Your task to perform on an android device: toggle translation in the chrome app Image 0: 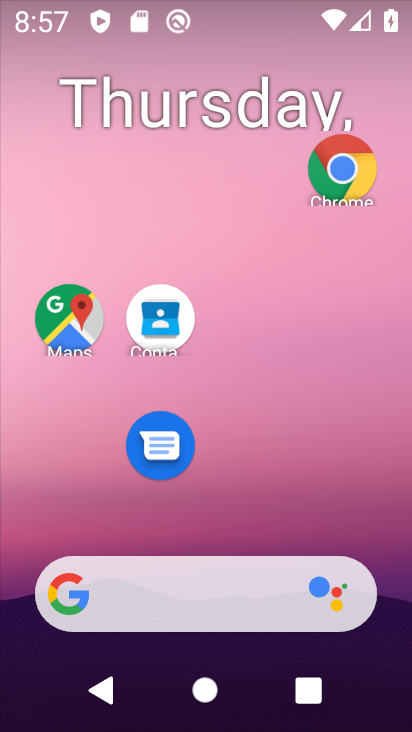
Step 0: drag from (257, 573) to (389, 100)
Your task to perform on an android device: toggle translation in the chrome app Image 1: 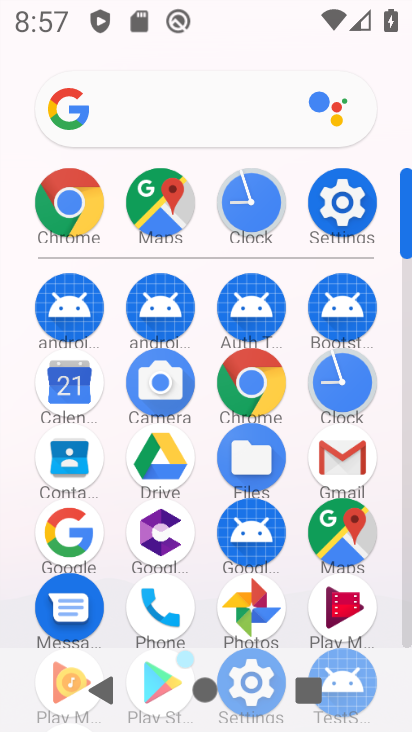
Step 1: click (86, 217)
Your task to perform on an android device: toggle translation in the chrome app Image 2: 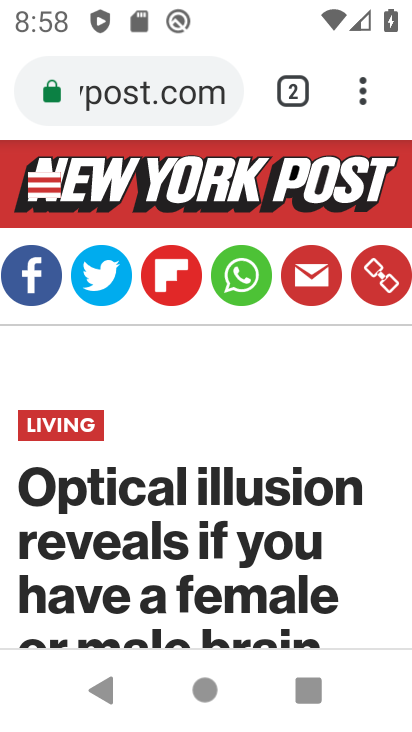
Step 2: click (362, 102)
Your task to perform on an android device: toggle translation in the chrome app Image 3: 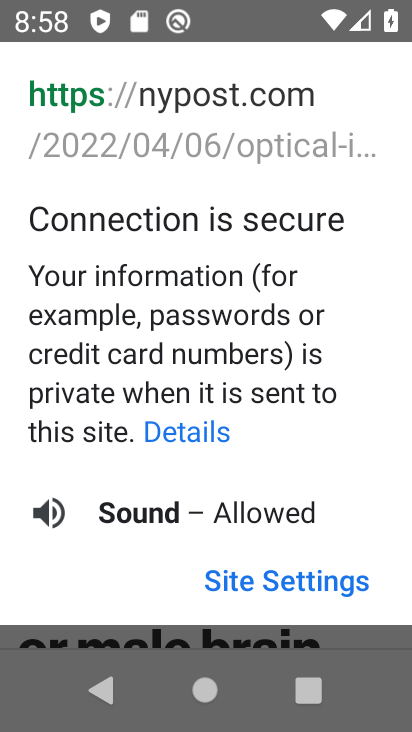
Step 3: press back button
Your task to perform on an android device: toggle translation in the chrome app Image 4: 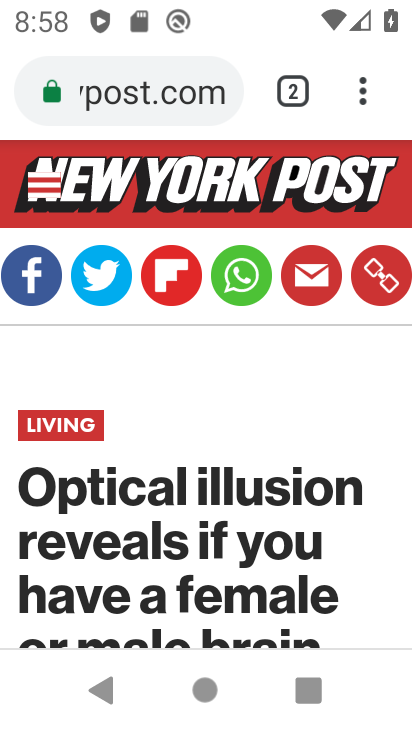
Step 4: click (359, 98)
Your task to perform on an android device: toggle translation in the chrome app Image 5: 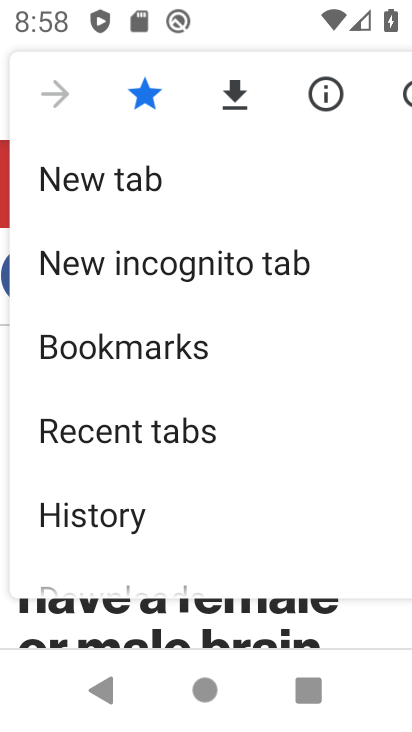
Step 5: drag from (134, 493) to (124, 157)
Your task to perform on an android device: toggle translation in the chrome app Image 6: 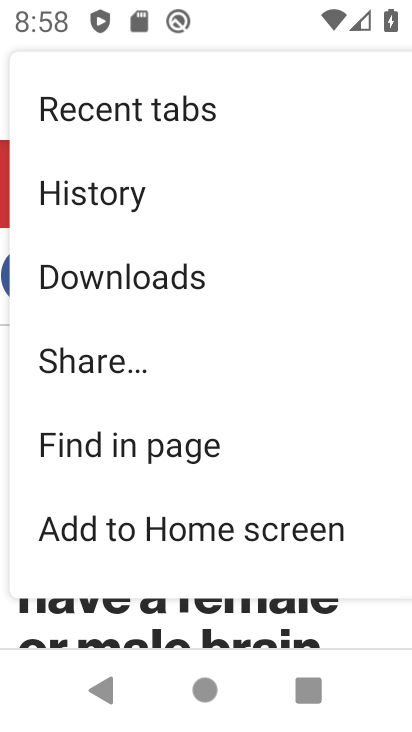
Step 6: drag from (140, 450) to (219, 190)
Your task to perform on an android device: toggle translation in the chrome app Image 7: 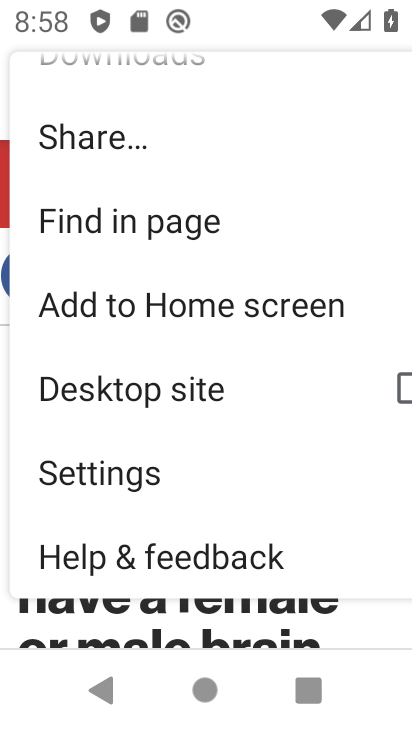
Step 7: click (134, 464)
Your task to perform on an android device: toggle translation in the chrome app Image 8: 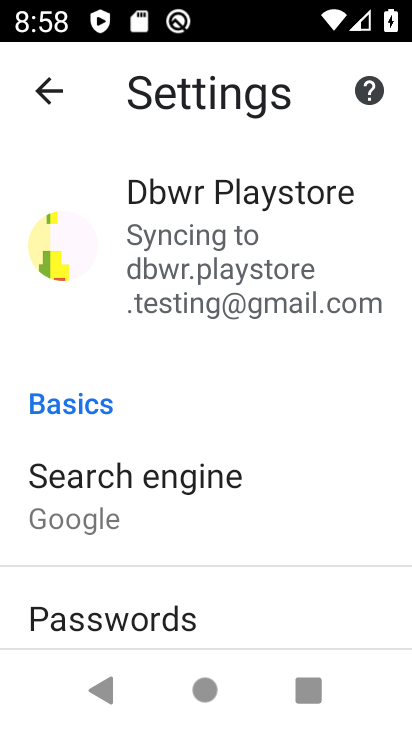
Step 8: drag from (136, 500) to (143, 274)
Your task to perform on an android device: toggle translation in the chrome app Image 9: 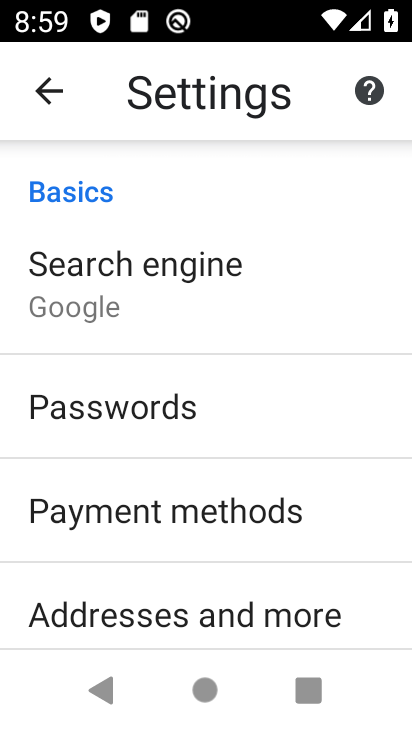
Step 9: drag from (181, 498) to (294, 279)
Your task to perform on an android device: toggle translation in the chrome app Image 10: 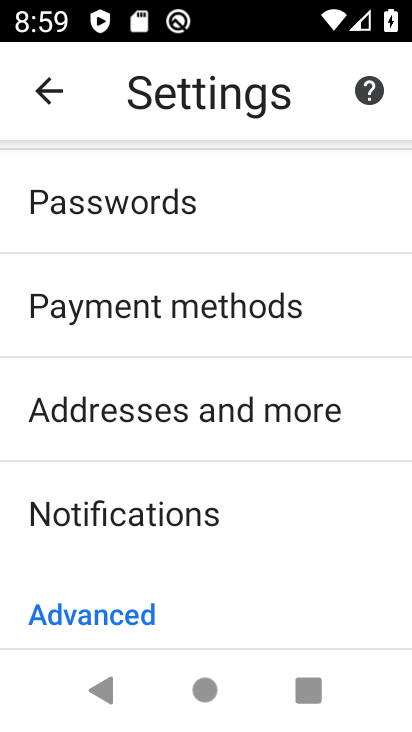
Step 10: drag from (178, 543) to (229, 356)
Your task to perform on an android device: toggle translation in the chrome app Image 11: 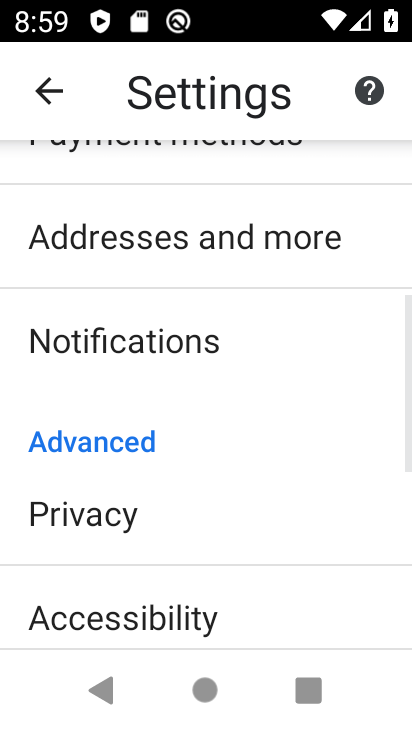
Step 11: drag from (150, 555) to (162, 329)
Your task to perform on an android device: toggle translation in the chrome app Image 12: 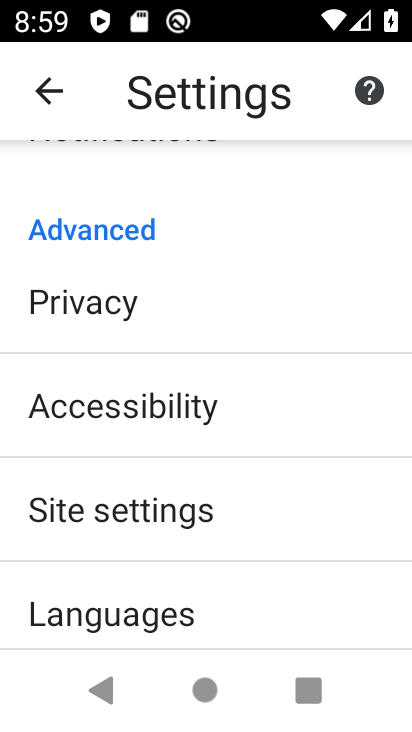
Step 12: click (134, 580)
Your task to perform on an android device: toggle translation in the chrome app Image 13: 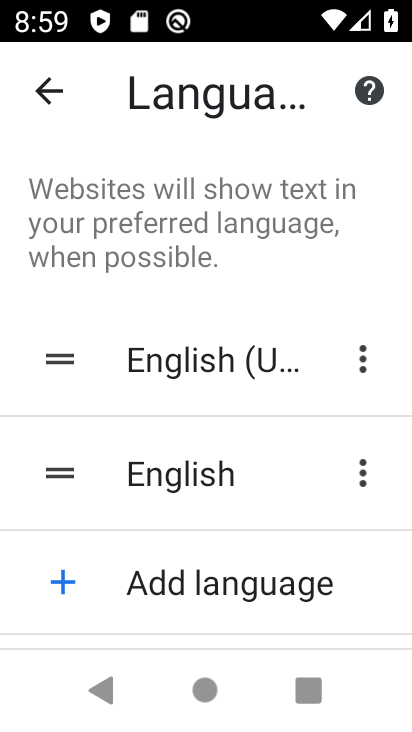
Step 13: drag from (160, 527) to (212, 286)
Your task to perform on an android device: toggle translation in the chrome app Image 14: 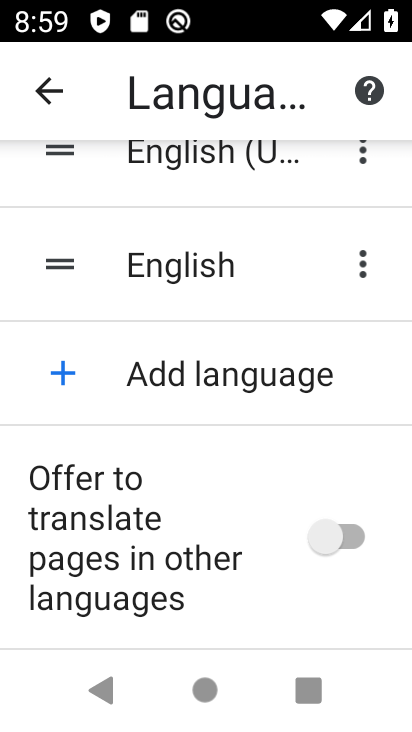
Step 14: click (207, 528)
Your task to perform on an android device: toggle translation in the chrome app Image 15: 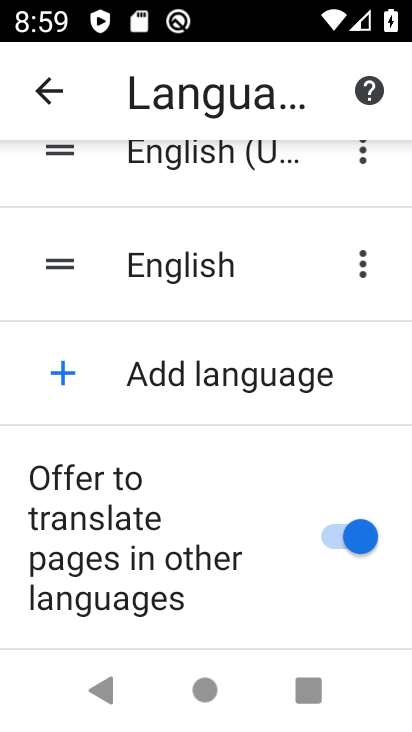
Step 15: task complete